Your task to perform on an android device: allow notifications from all sites in the chrome app Image 0: 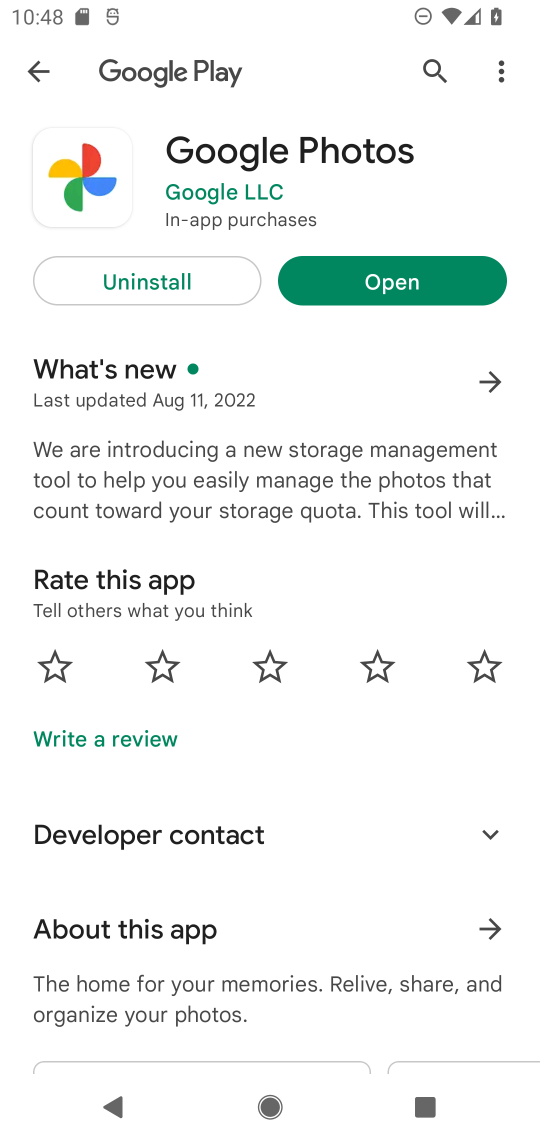
Step 0: press home button
Your task to perform on an android device: allow notifications from all sites in the chrome app Image 1: 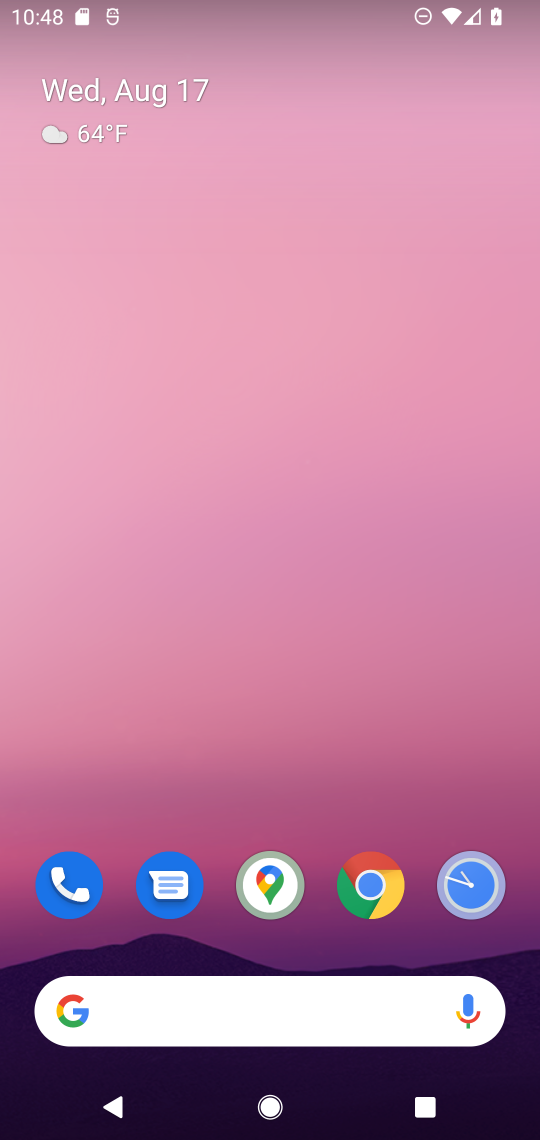
Step 1: click (369, 886)
Your task to perform on an android device: allow notifications from all sites in the chrome app Image 2: 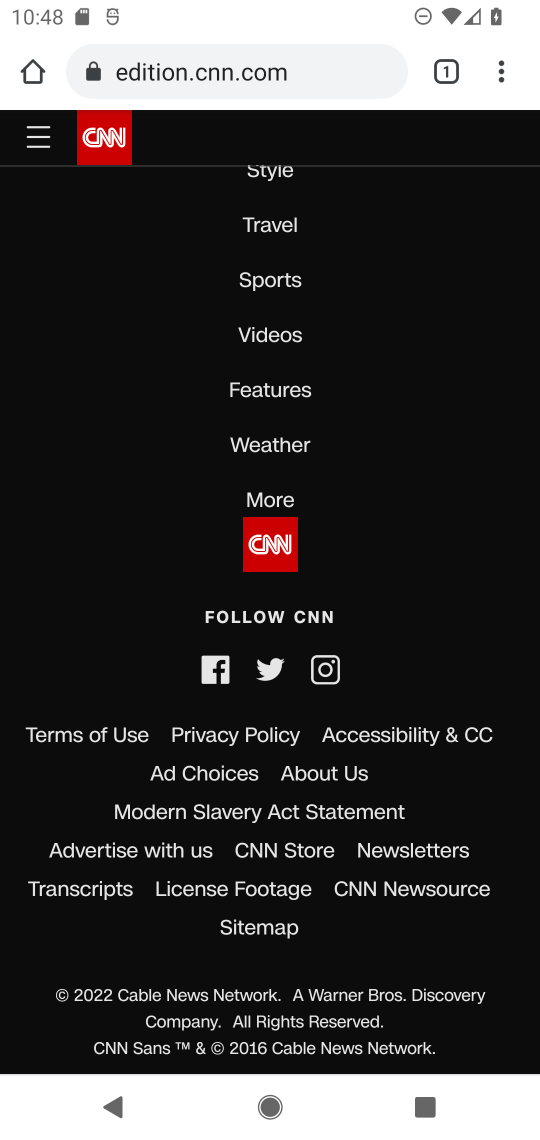
Step 2: click (493, 77)
Your task to perform on an android device: allow notifications from all sites in the chrome app Image 3: 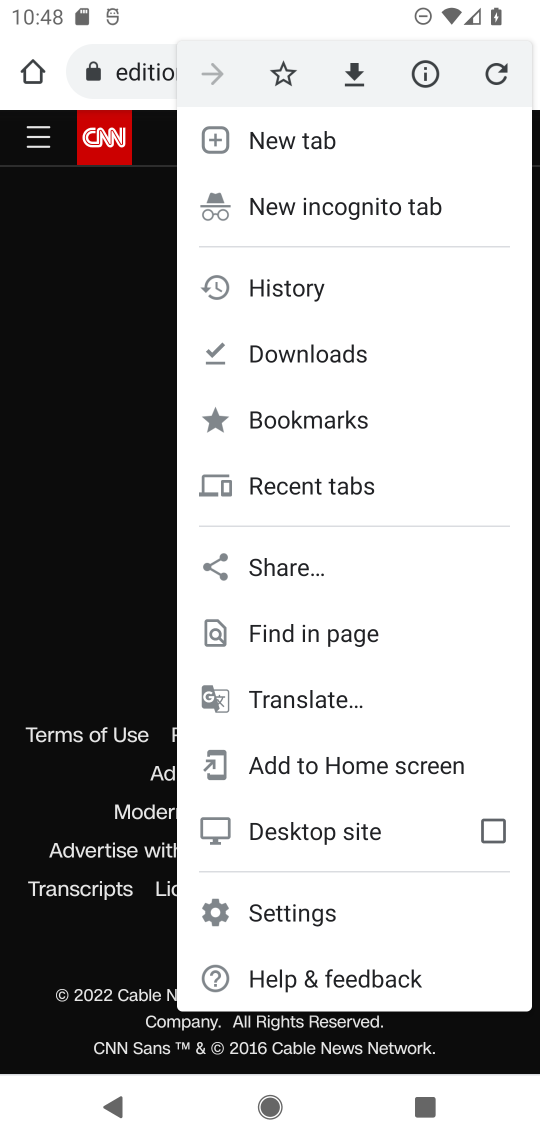
Step 3: click (313, 911)
Your task to perform on an android device: allow notifications from all sites in the chrome app Image 4: 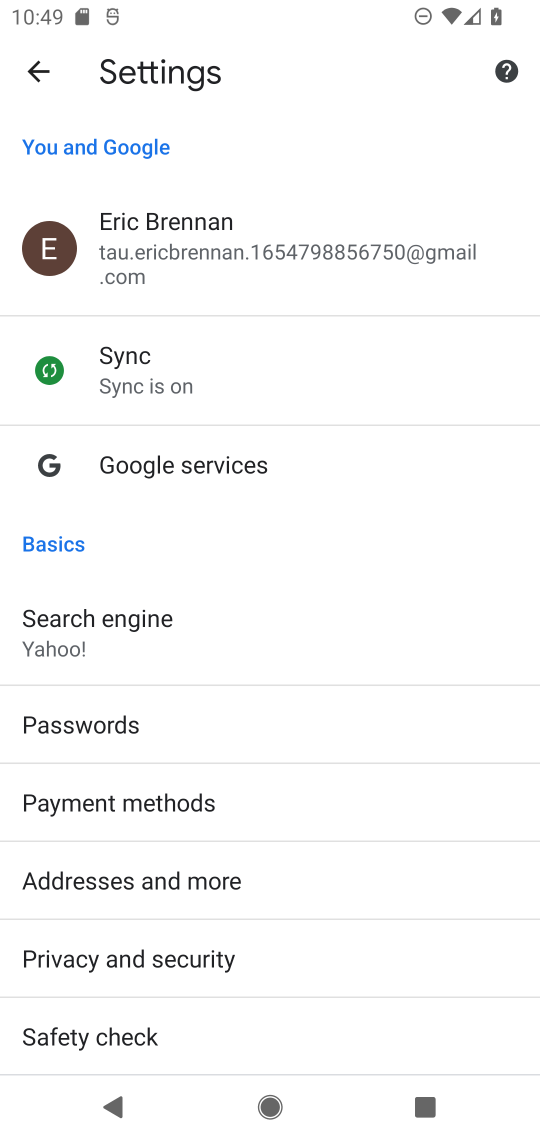
Step 4: drag from (313, 911) to (345, 261)
Your task to perform on an android device: allow notifications from all sites in the chrome app Image 5: 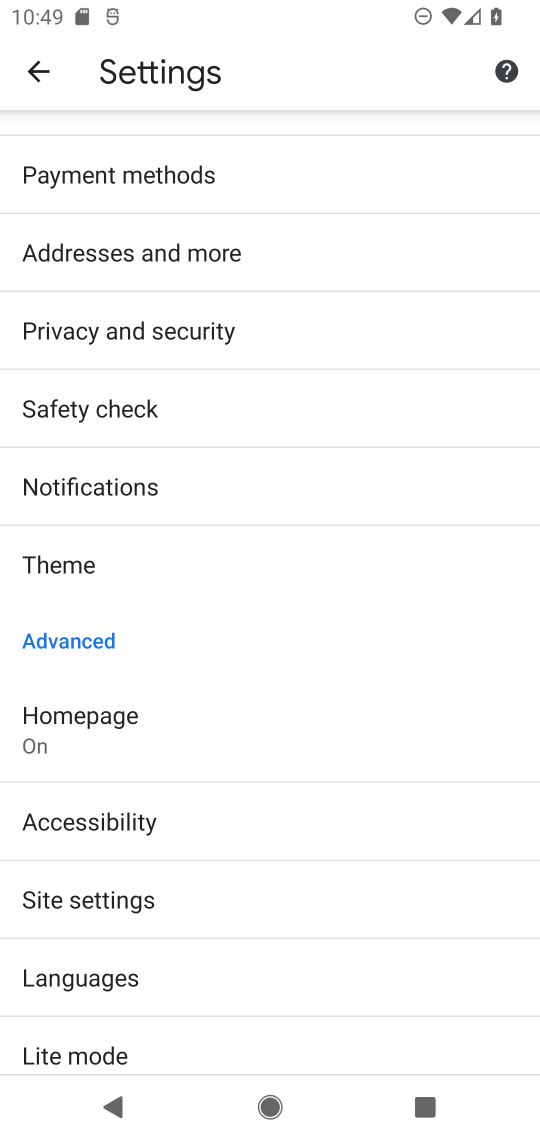
Step 5: click (102, 899)
Your task to perform on an android device: allow notifications from all sites in the chrome app Image 6: 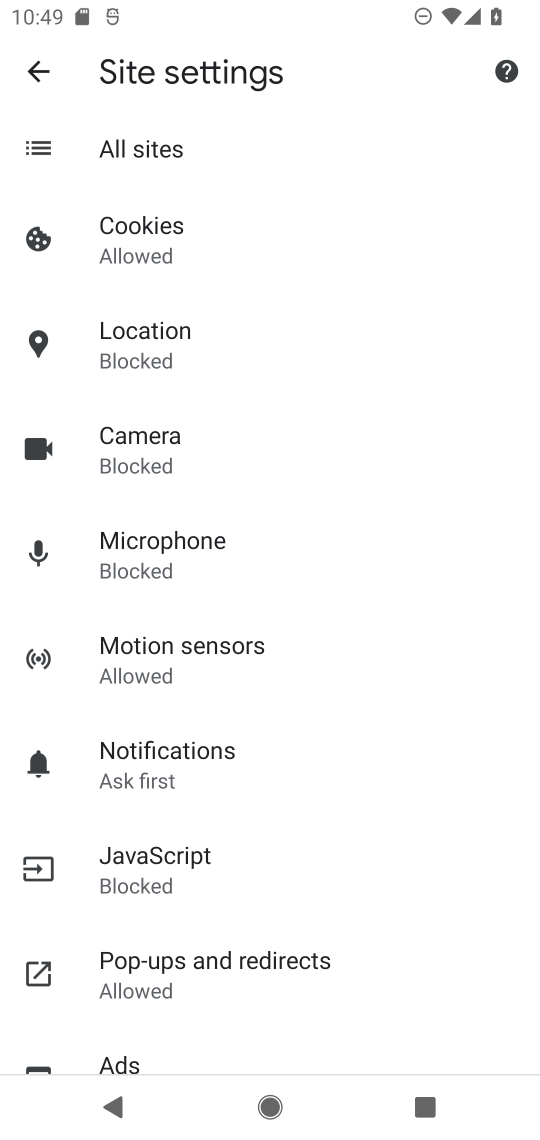
Step 6: click (184, 752)
Your task to perform on an android device: allow notifications from all sites in the chrome app Image 7: 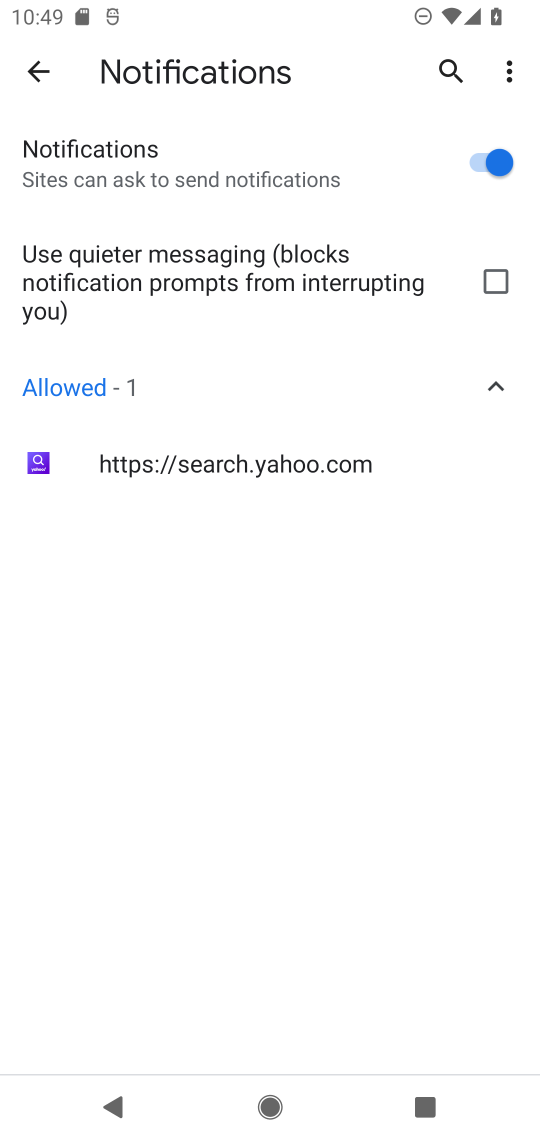
Step 7: task complete